Your task to perform on an android device: choose inbox layout in the gmail app Image 0: 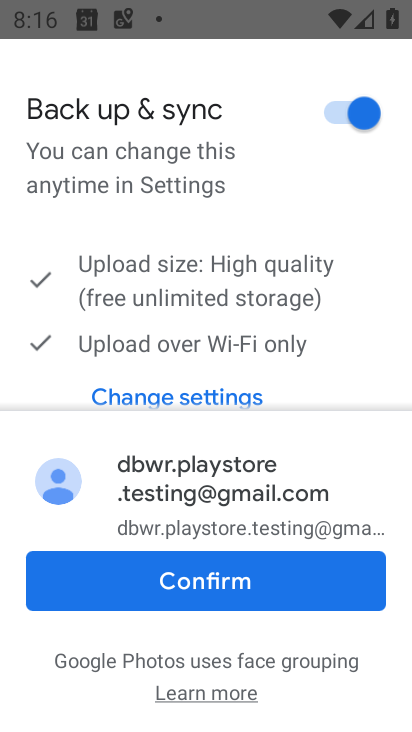
Step 0: press home button
Your task to perform on an android device: choose inbox layout in the gmail app Image 1: 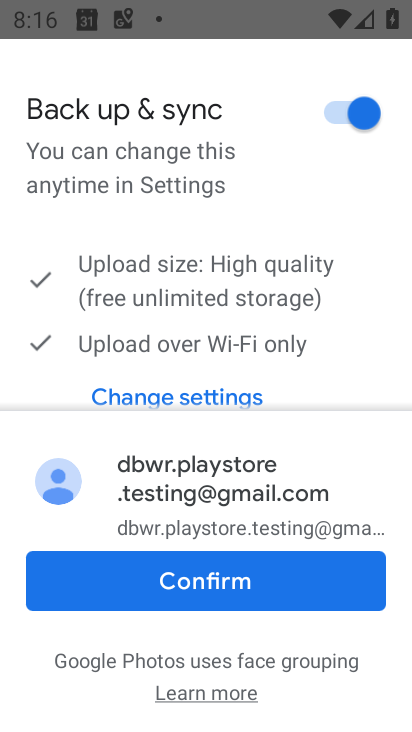
Step 1: press home button
Your task to perform on an android device: choose inbox layout in the gmail app Image 2: 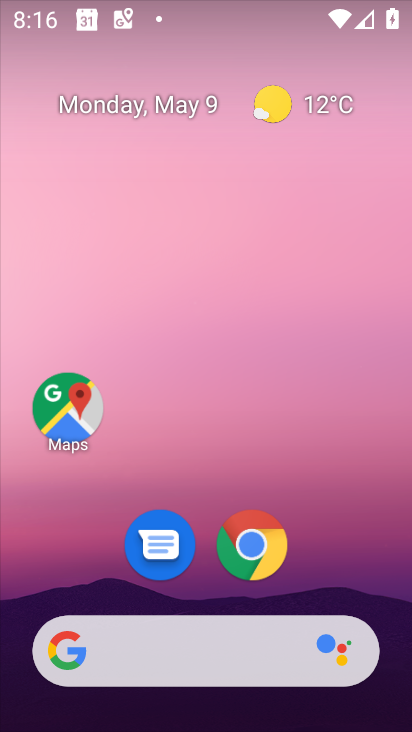
Step 2: drag from (208, 729) to (213, 134)
Your task to perform on an android device: choose inbox layout in the gmail app Image 3: 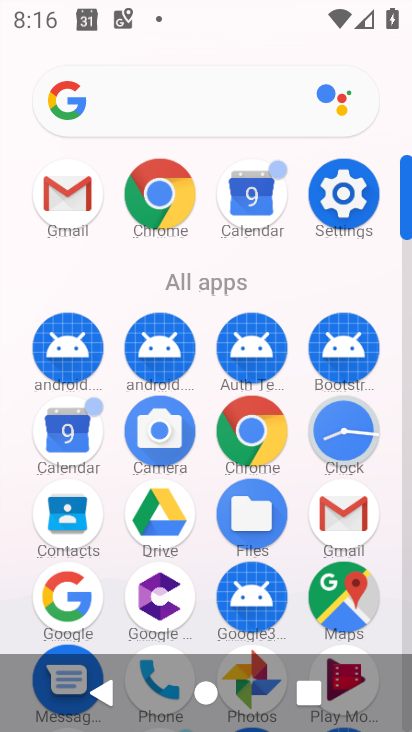
Step 3: click (347, 514)
Your task to perform on an android device: choose inbox layout in the gmail app Image 4: 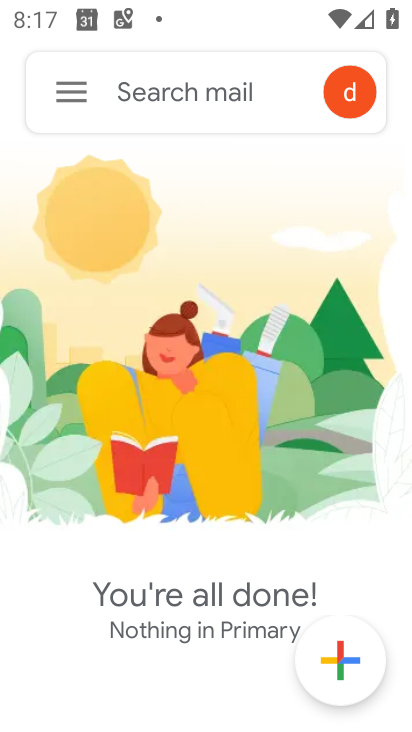
Step 4: click (64, 89)
Your task to perform on an android device: choose inbox layout in the gmail app Image 5: 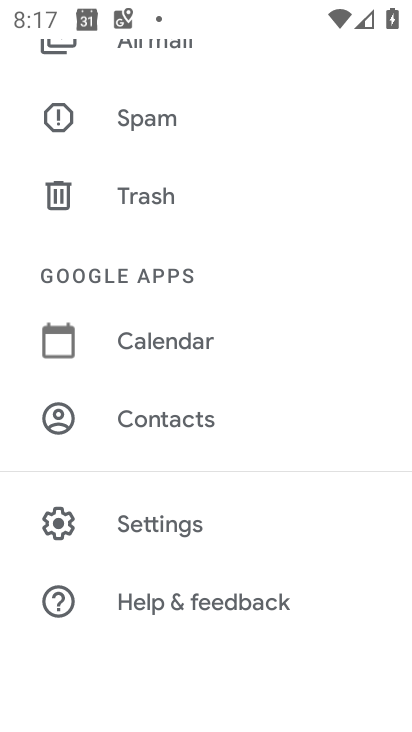
Step 5: click (149, 520)
Your task to perform on an android device: choose inbox layout in the gmail app Image 6: 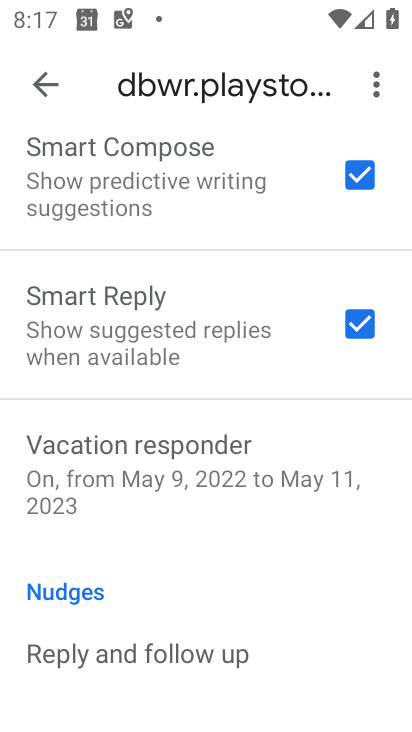
Step 6: drag from (219, 656) to (205, 386)
Your task to perform on an android device: choose inbox layout in the gmail app Image 7: 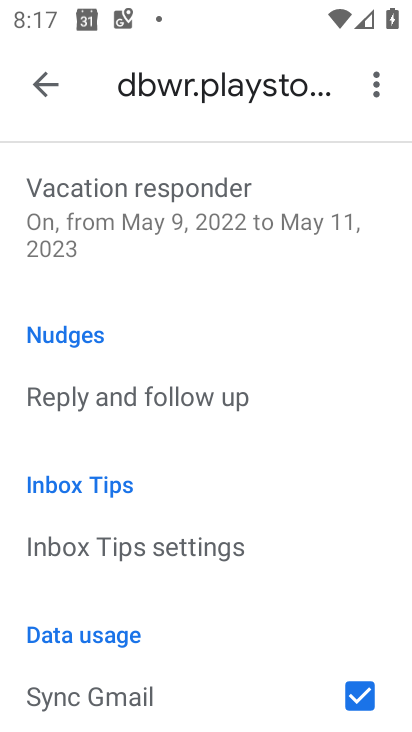
Step 7: drag from (190, 653) to (168, 327)
Your task to perform on an android device: choose inbox layout in the gmail app Image 8: 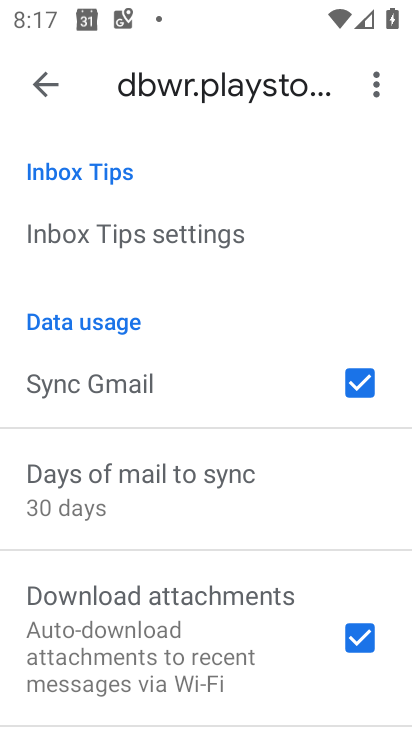
Step 8: drag from (165, 663) to (151, 380)
Your task to perform on an android device: choose inbox layout in the gmail app Image 9: 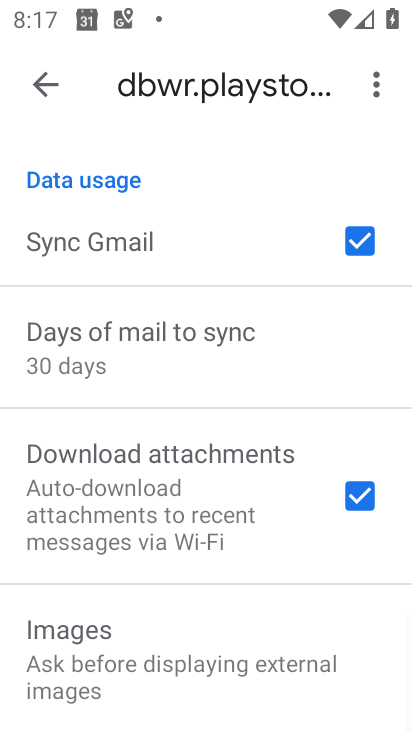
Step 9: drag from (163, 645) to (165, 413)
Your task to perform on an android device: choose inbox layout in the gmail app Image 10: 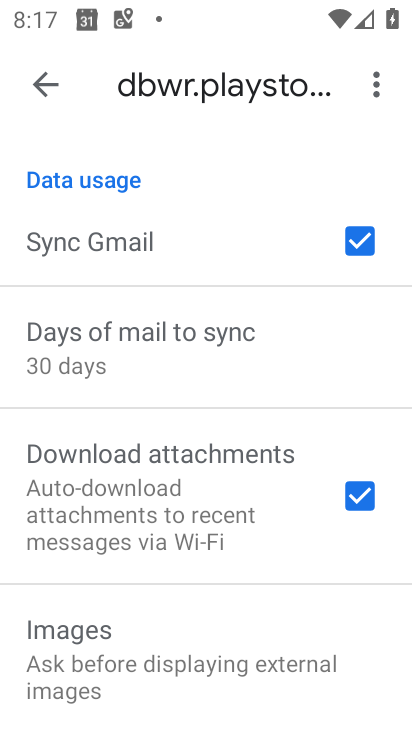
Step 10: drag from (175, 142) to (176, 572)
Your task to perform on an android device: choose inbox layout in the gmail app Image 11: 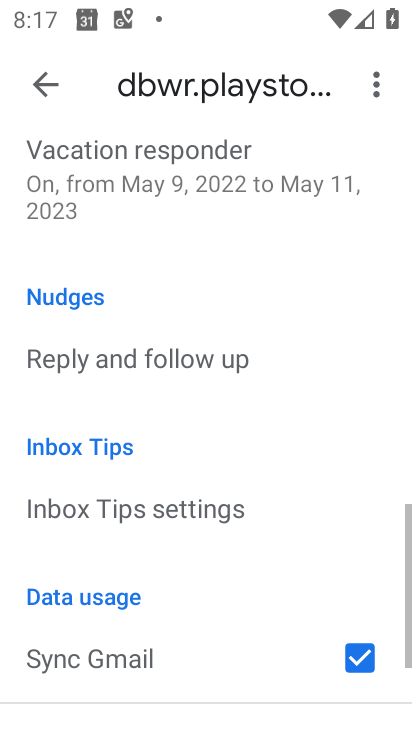
Step 11: drag from (188, 154) to (188, 534)
Your task to perform on an android device: choose inbox layout in the gmail app Image 12: 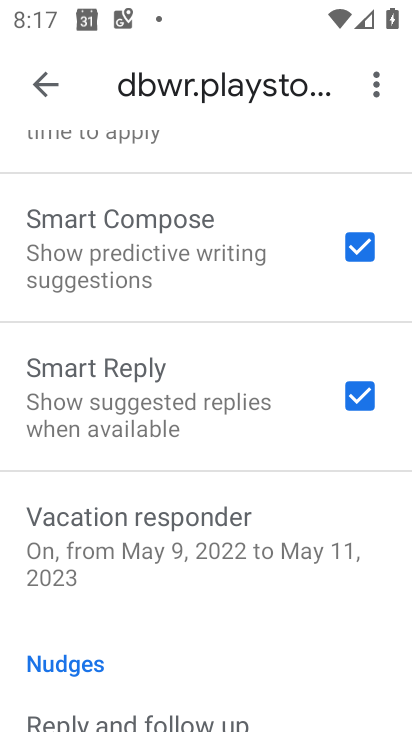
Step 12: drag from (221, 173) to (218, 611)
Your task to perform on an android device: choose inbox layout in the gmail app Image 13: 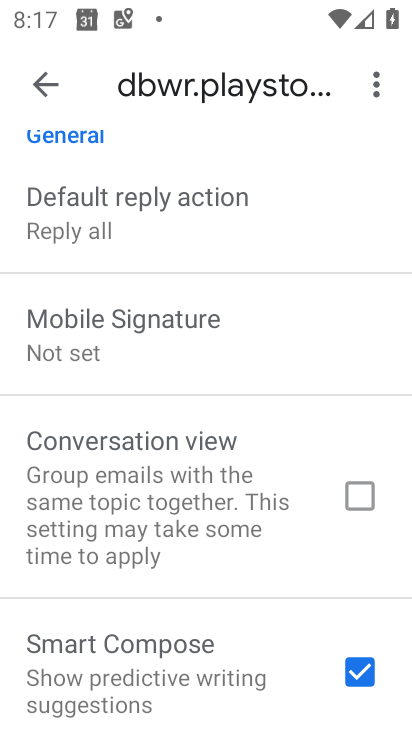
Step 13: drag from (249, 171) to (235, 470)
Your task to perform on an android device: choose inbox layout in the gmail app Image 14: 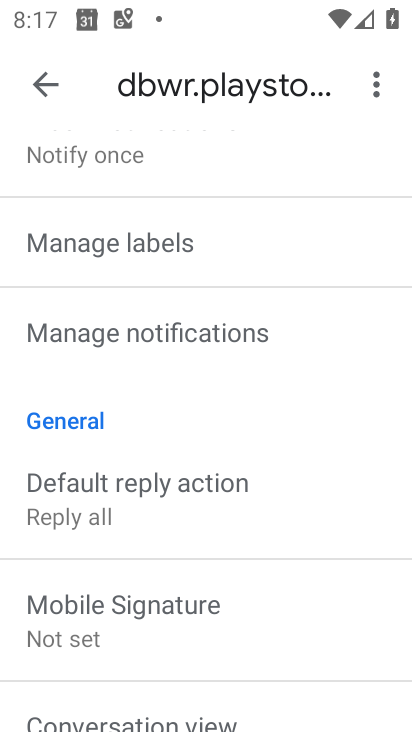
Step 14: drag from (226, 193) to (208, 483)
Your task to perform on an android device: choose inbox layout in the gmail app Image 15: 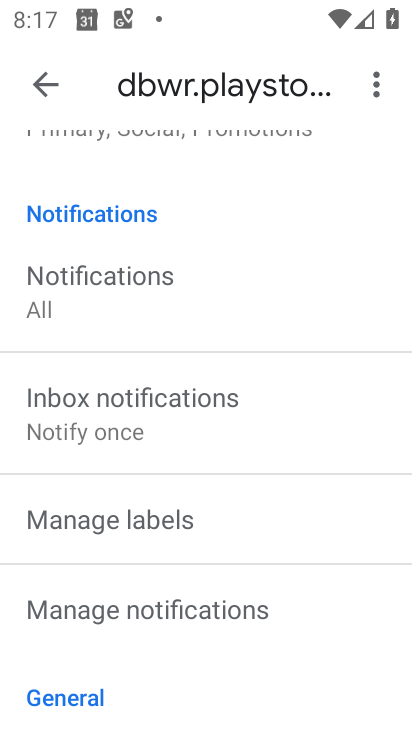
Step 15: drag from (209, 175) to (201, 425)
Your task to perform on an android device: choose inbox layout in the gmail app Image 16: 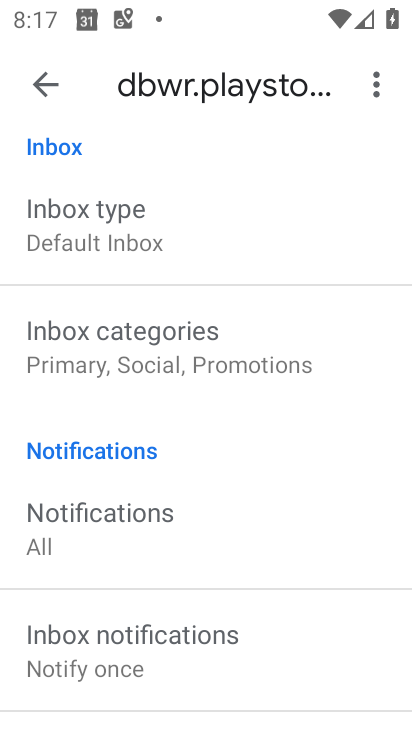
Step 16: click (105, 228)
Your task to perform on an android device: choose inbox layout in the gmail app Image 17: 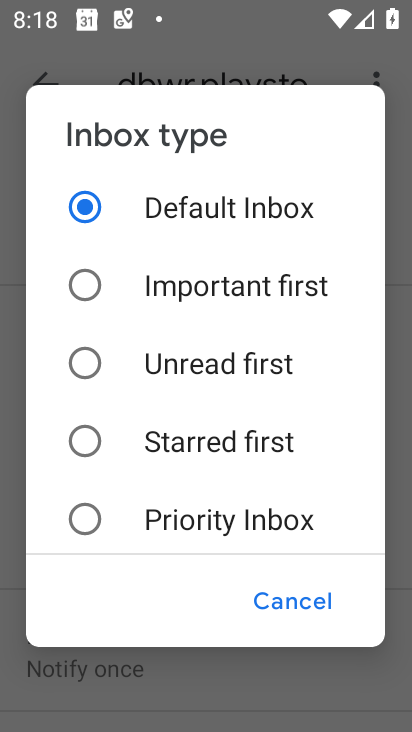
Step 17: click (94, 297)
Your task to perform on an android device: choose inbox layout in the gmail app Image 18: 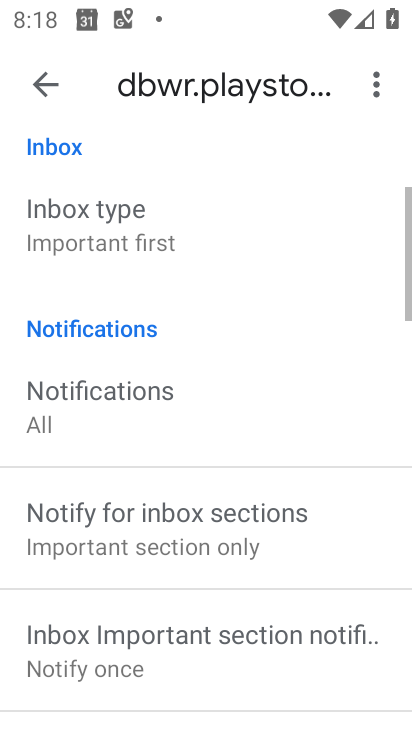
Step 18: task complete